Your task to perform on an android device: check storage Image 0: 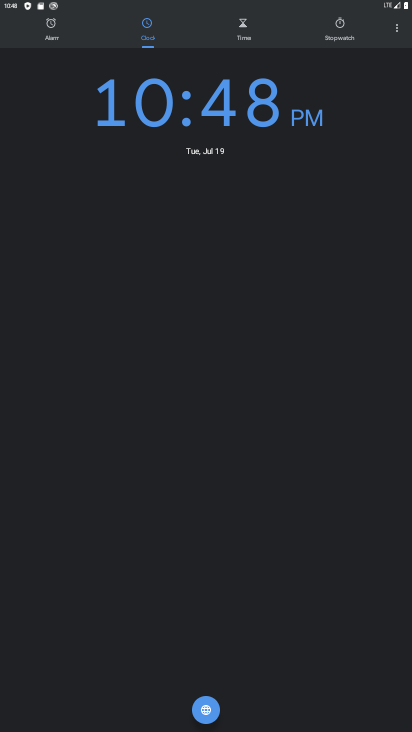
Step 0: press home button
Your task to perform on an android device: check storage Image 1: 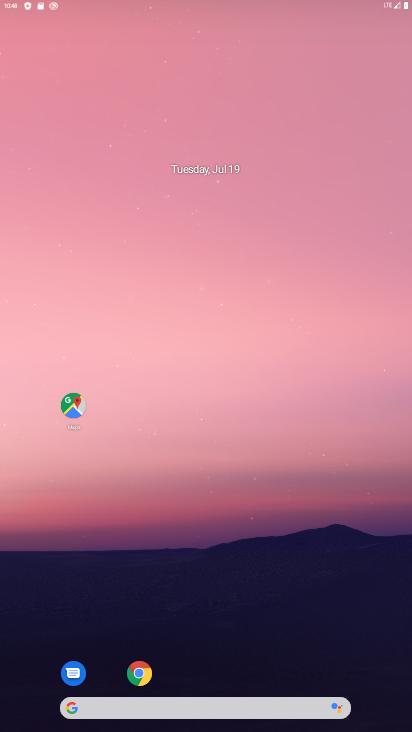
Step 1: drag from (213, 668) to (226, 49)
Your task to perform on an android device: check storage Image 2: 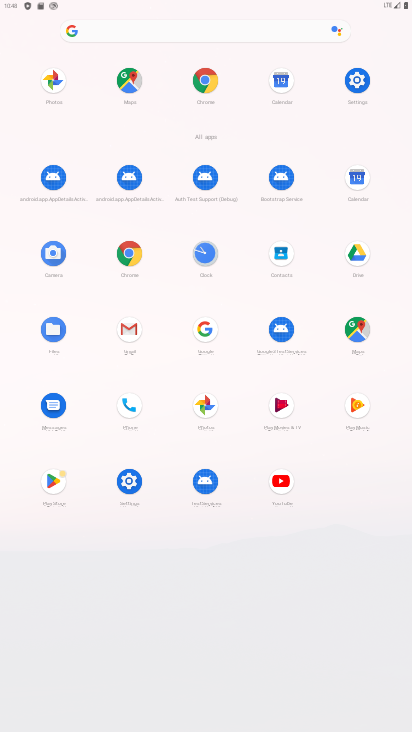
Step 2: click (357, 83)
Your task to perform on an android device: check storage Image 3: 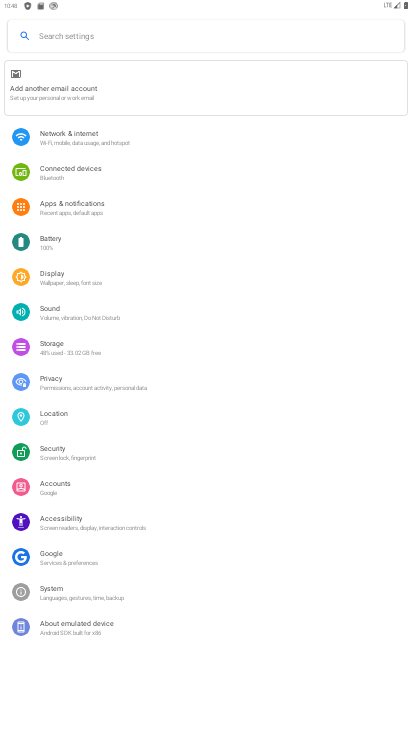
Step 3: click (82, 351)
Your task to perform on an android device: check storage Image 4: 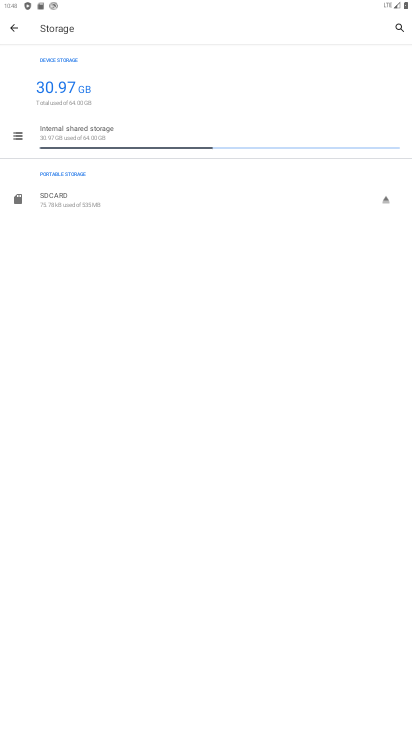
Step 4: task complete